Your task to perform on an android device: Do I have any events today? Image 0: 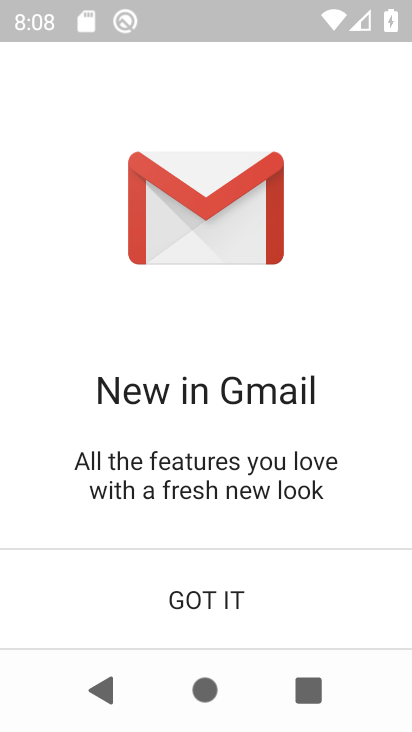
Step 0: press home button
Your task to perform on an android device: Do I have any events today? Image 1: 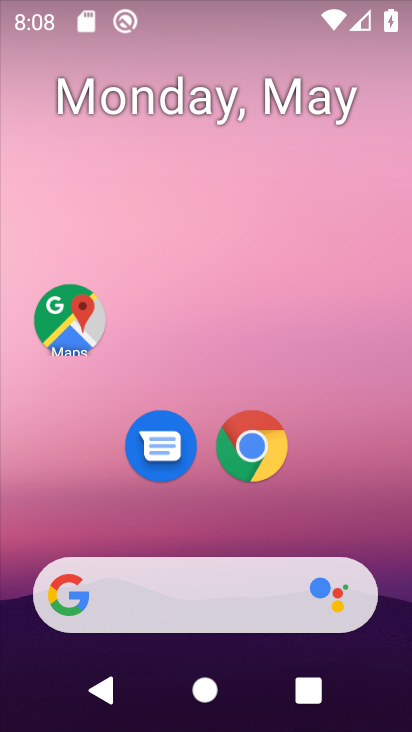
Step 1: drag from (204, 522) to (253, 0)
Your task to perform on an android device: Do I have any events today? Image 2: 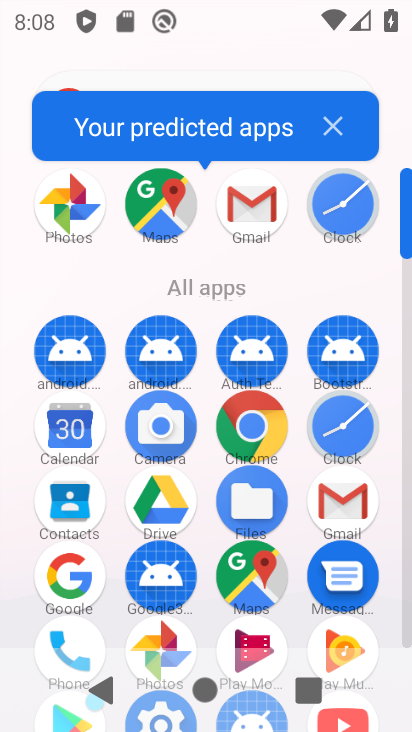
Step 2: click (64, 419)
Your task to perform on an android device: Do I have any events today? Image 3: 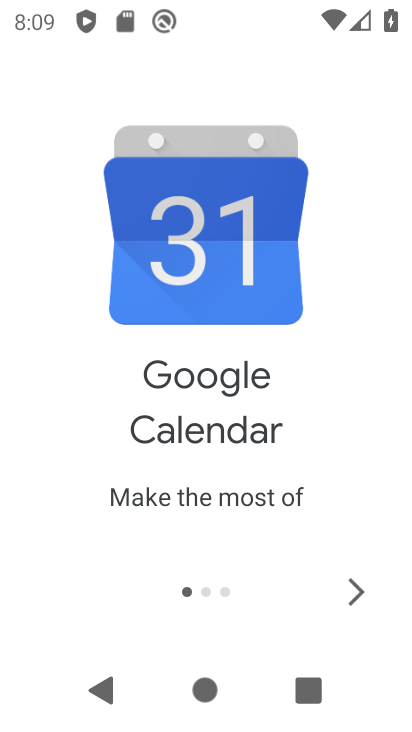
Step 3: click (356, 580)
Your task to perform on an android device: Do I have any events today? Image 4: 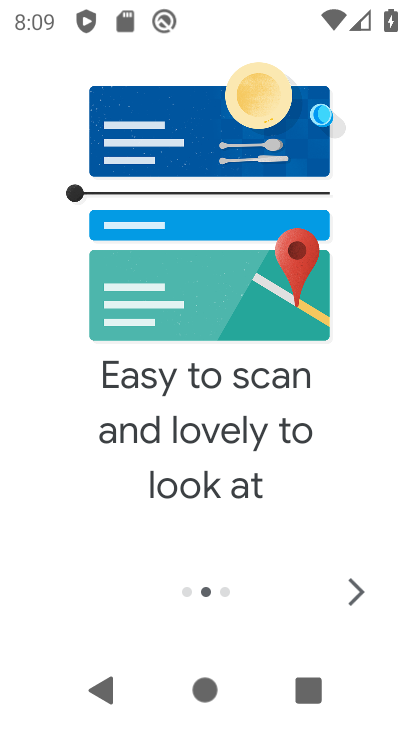
Step 4: click (352, 586)
Your task to perform on an android device: Do I have any events today? Image 5: 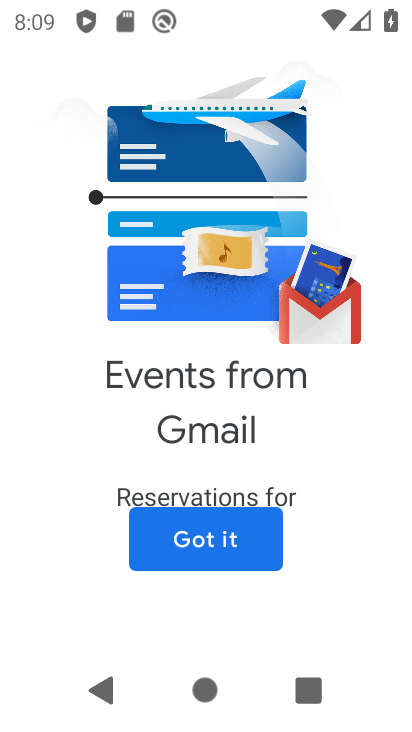
Step 5: click (209, 541)
Your task to perform on an android device: Do I have any events today? Image 6: 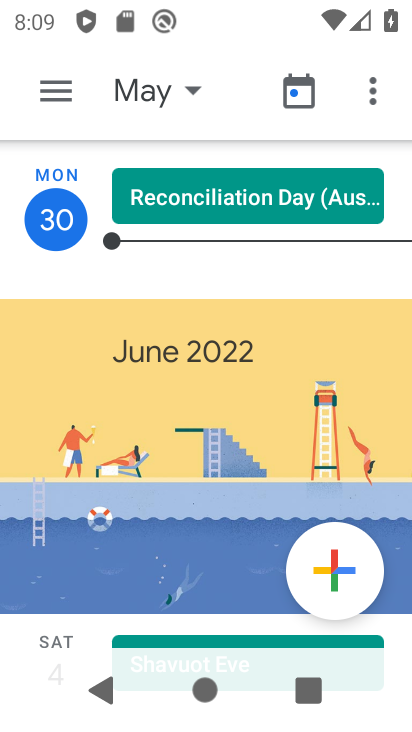
Step 6: click (79, 243)
Your task to perform on an android device: Do I have any events today? Image 7: 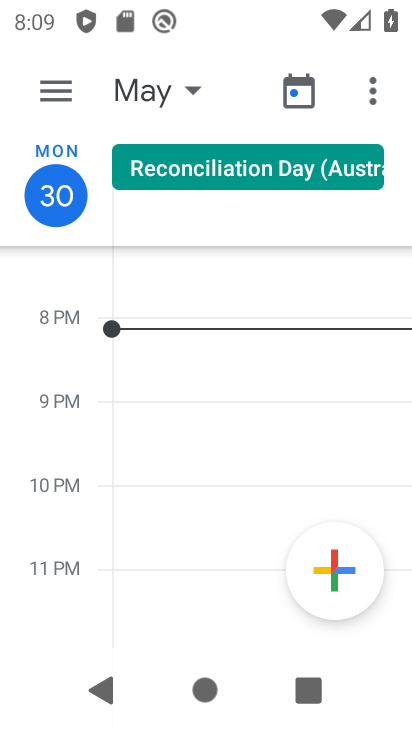
Step 7: task complete